Your task to perform on an android device: Set the phone to "Do not disturb". Image 0: 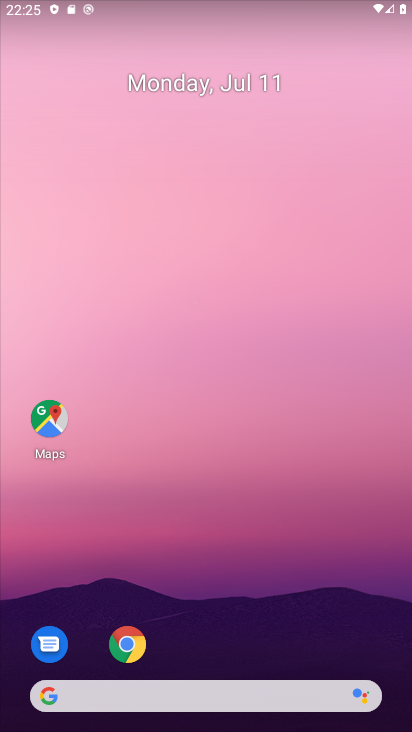
Step 0: drag from (213, 698) to (155, 274)
Your task to perform on an android device: Set the phone to "Do not disturb". Image 1: 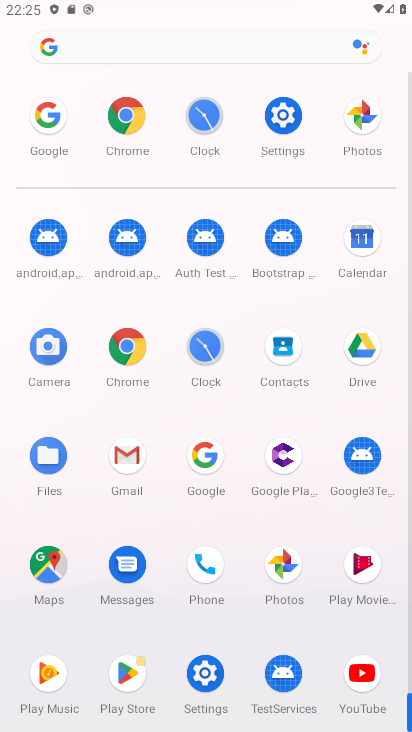
Step 1: click (195, 665)
Your task to perform on an android device: Set the phone to "Do not disturb". Image 2: 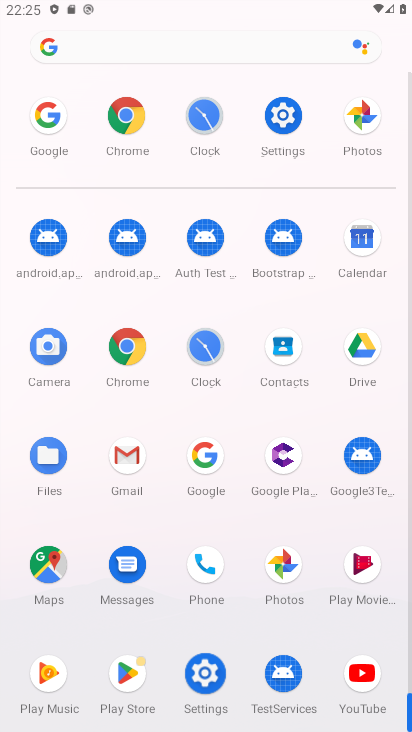
Step 2: click (200, 664)
Your task to perform on an android device: Set the phone to "Do not disturb". Image 3: 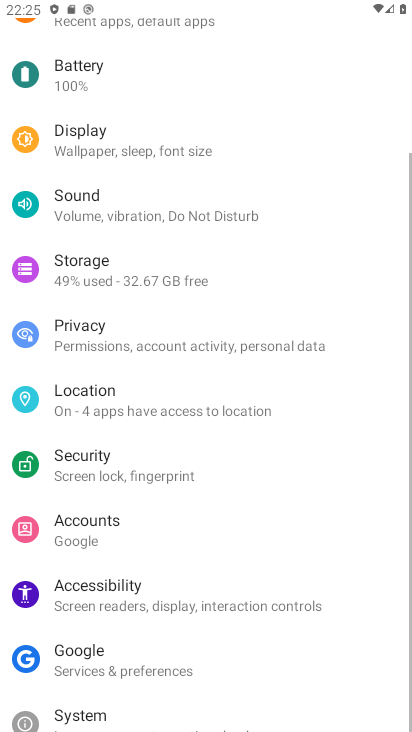
Step 3: click (204, 664)
Your task to perform on an android device: Set the phone to "Do not disturb". Image 4: 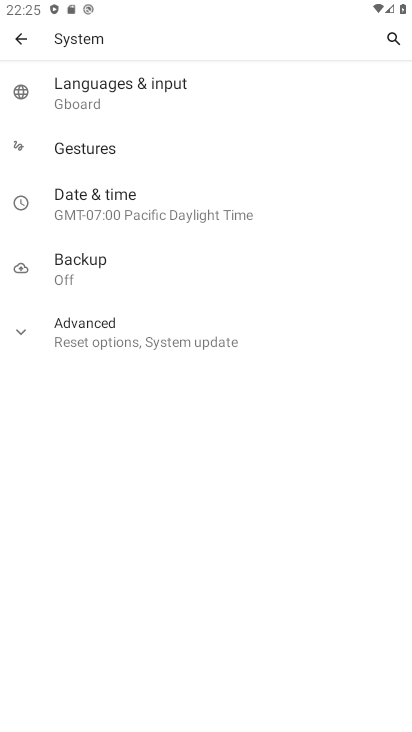
Step 4: click (7, 40)
Your task to perform on an android device: Set the phone to "Do not disturb". Image 5: 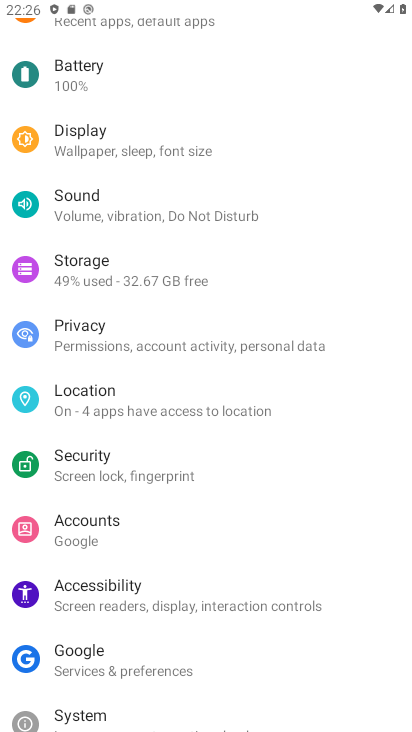
Step 5: click (205, 435)
Your task to perform on an android device: Set the phone to "Do not disturb". Image 6: 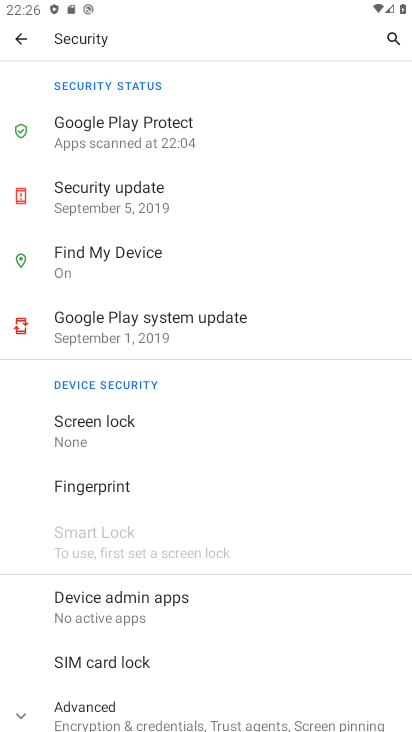
Step 6: click (20, 38)
Your task to perform on an android device: Set the phone to "Do not disturb". Image 7: 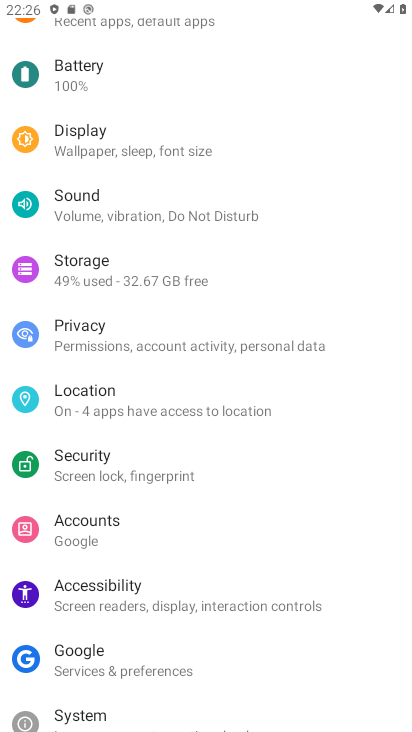
Step 7: click (106, 186)
Your task to perform on an android device: Set the phone to "Do not disturb". Image 8: 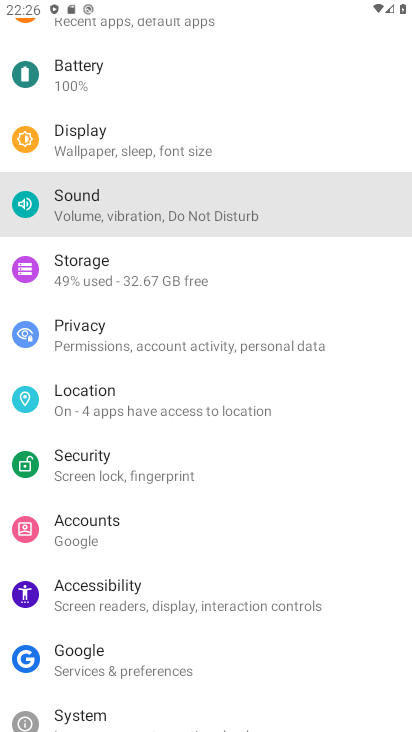
Step 8: click (103, 188)
Your task to perform on an android device: Set the phone to "Do not disturb". Image 9: 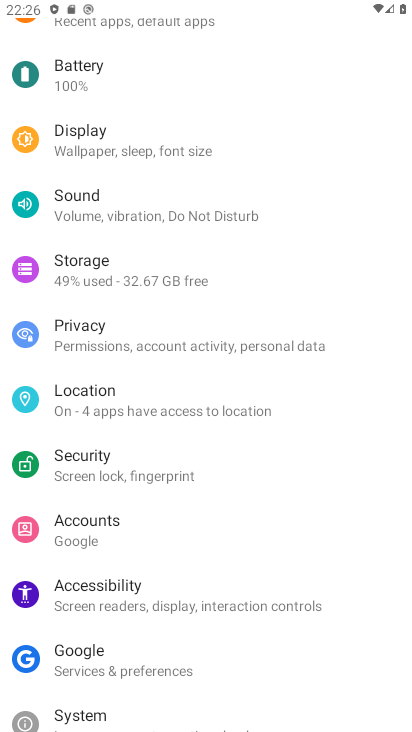
Step 9: click (98, 186)
Your task to perform on an android device: Set the phone to "Do not disturb". Image 10: 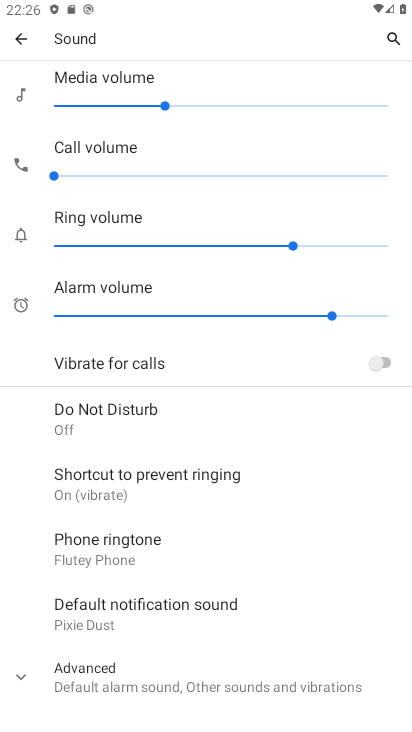
Step 10: task complete